Your task to perform on an android device: What's on my calendar today? Image 0: 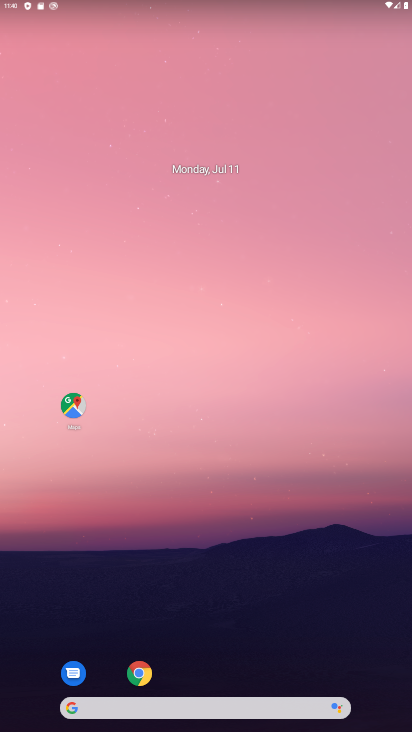
Step 0: drag from (215, 678) to (239, 5)
Your task to perform on an android device: What's on my calendar today? Image 1: 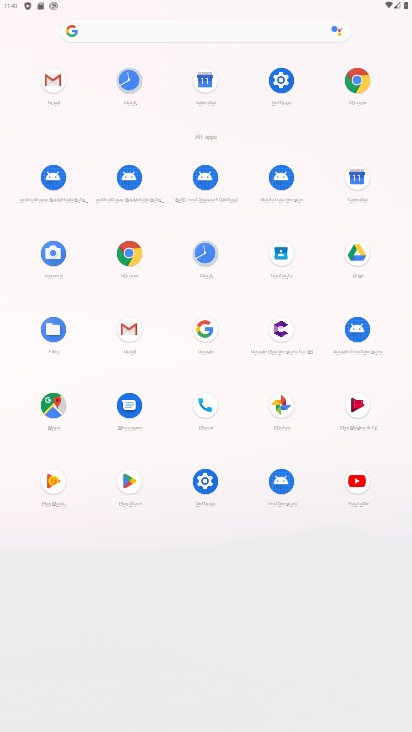
Step 1: click (358, 171)
Your task to perform on an android device: What's on my calendar today? Image 2: 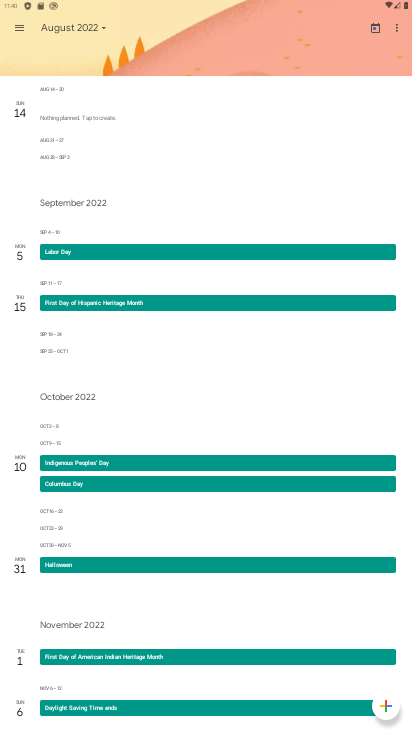
Step 2: click (14, 25)
Your task to perform on an android device: What's on my calendar today? Image 3: 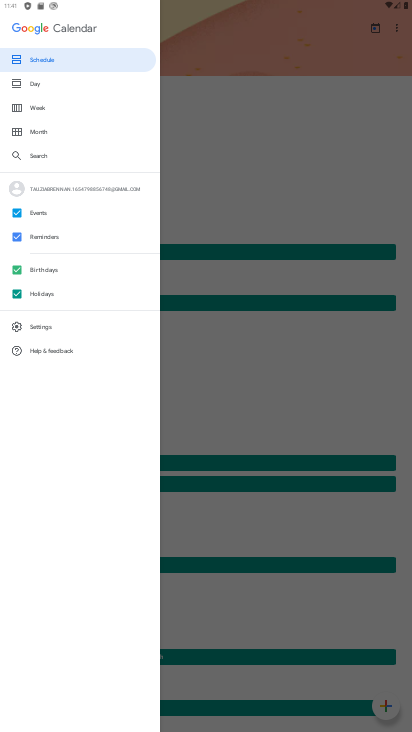
Step 3: click (24, 84)
Your task to perform on an android device: What's on my calendar today? Image 4: 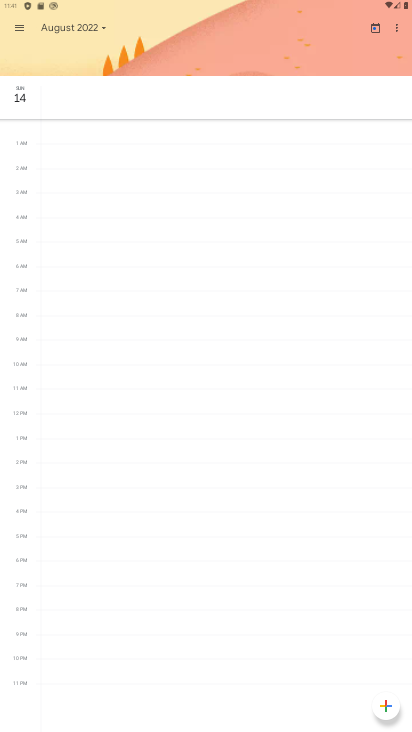
Step 4: click (91, 23)
Your task to perform on an android device: What's on my calendar today? Image 5: 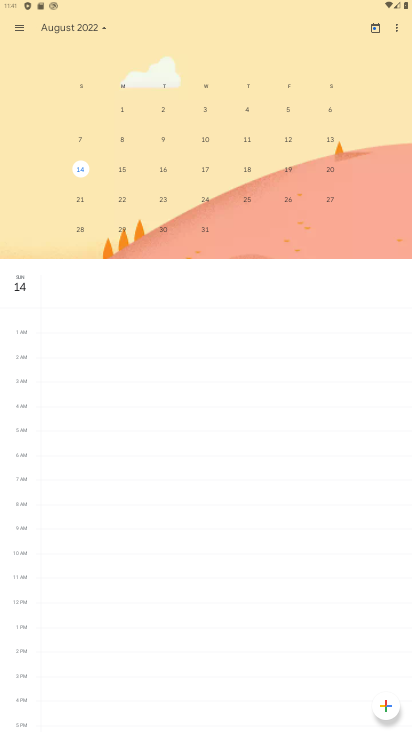
Step 5: drag from (74, 140) to (349, 150)
Your task to perform on an android device: What's on my calendar today? Image 6: 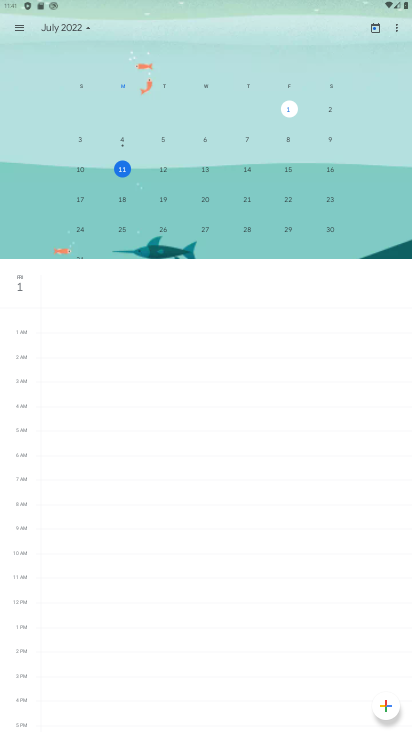
Step 6: click (122, 161)
Your task to perform on an android device: What's on my calendar today? Image 7: 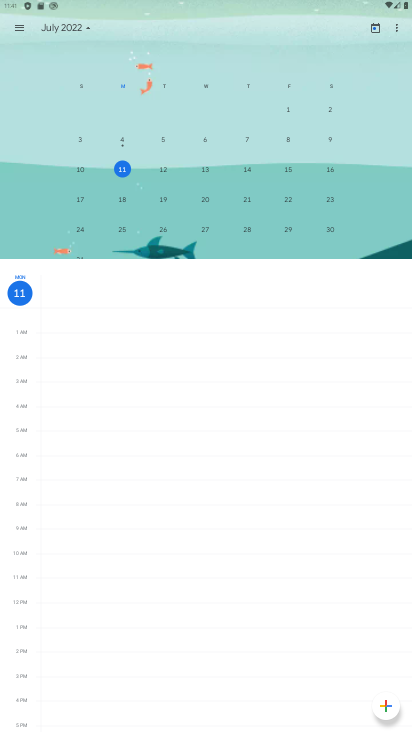
Step 7: click (77, 21)
Your task to perform on an android device: What's on my calendar today? Image 8: 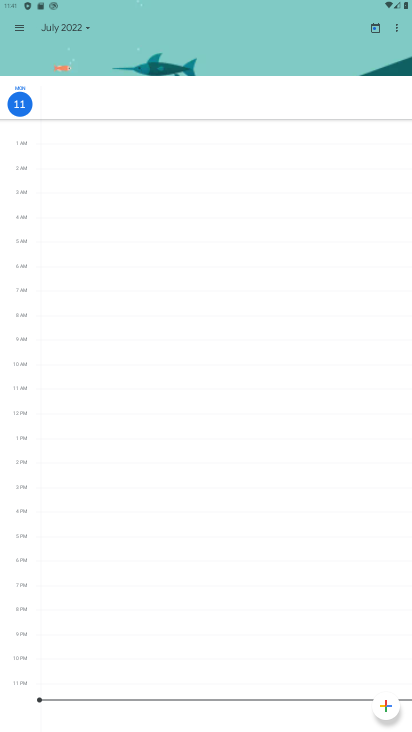
Step 8: task complete